Your task to perform on an android device: install app "Upside-Cash back on gas & food" Image 0: 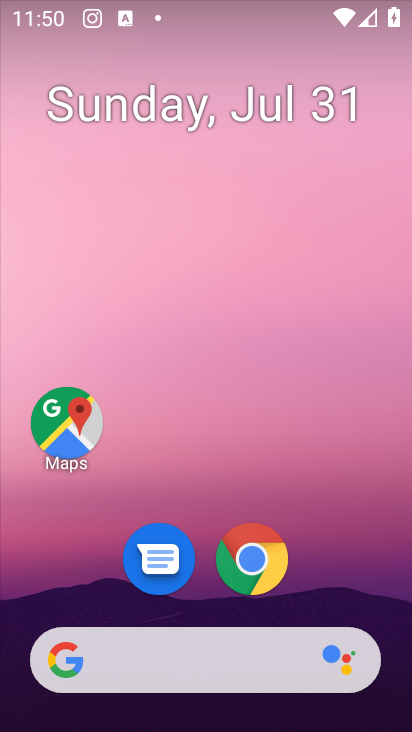
Step 0: drag from (97, 584) to (190, 33)
Your task to perform on an android device: install app "Upside-Cash back on gas & food" Image 1: 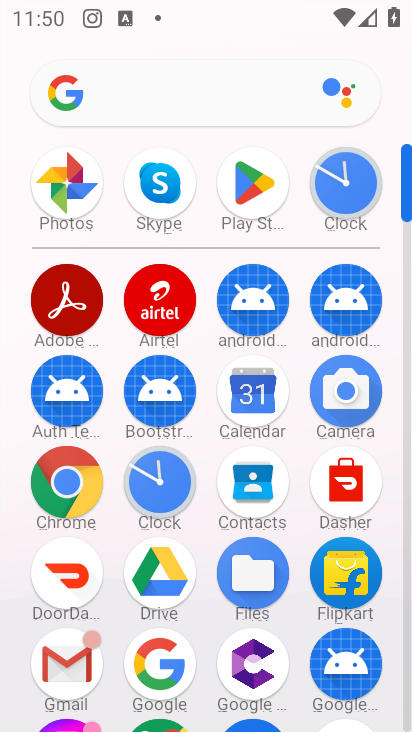
Step 1: click (243, 180)
Your task to perform on an android device: install app "Upside-Cash back on gas & food" Image 2: 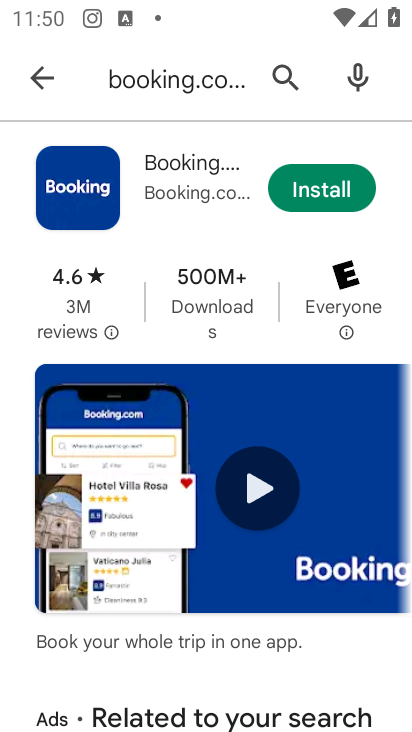
Step 2: click (278, 65)
Your task to perform on an android device: install app "Upside-Cash back on gas & food" Image 3: 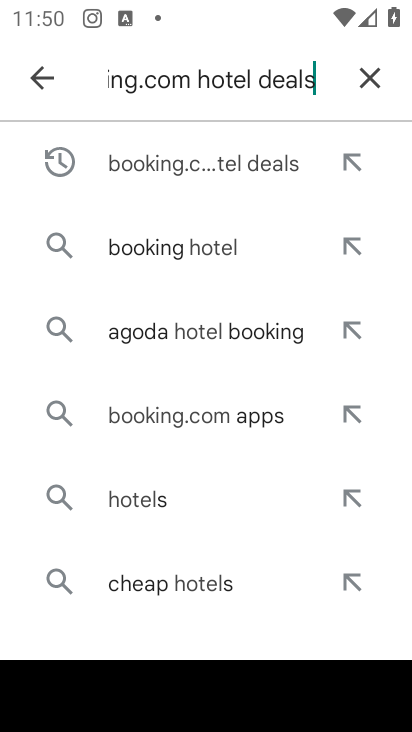
Step 3: click (359, 82)
Your task to perform on an android device: install app "Upside-Cash back on gas & food" Image 4: 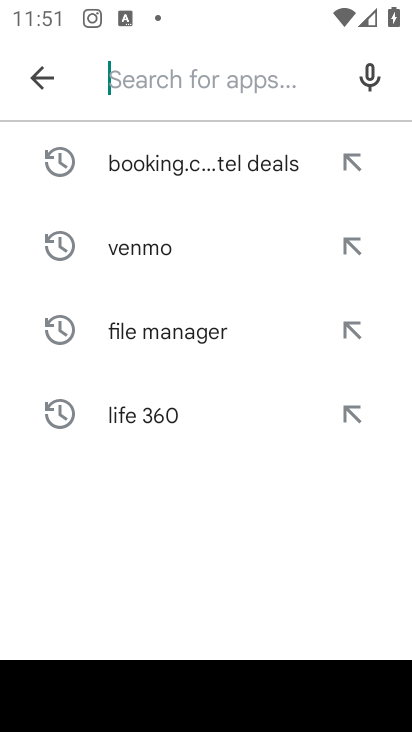
Step 4: click (160, 80)
Your task to perform on an android device: install app "Upside-Cash back on gas & food" Image 5: 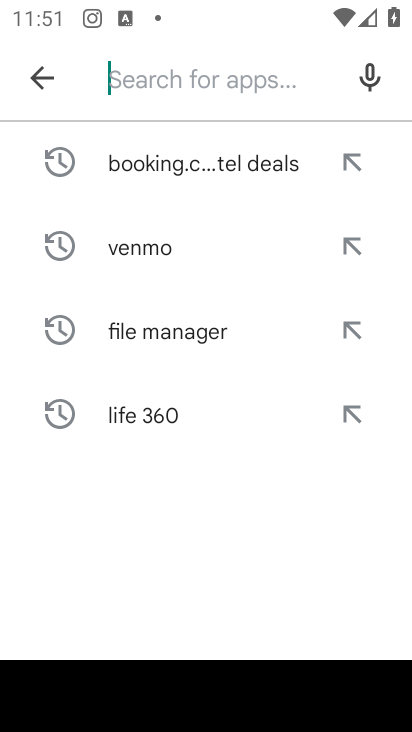
Step 5: type "upside cash"
Your task to perform on an android device: install app "Upside-Cash back on gas & food" Image 6: 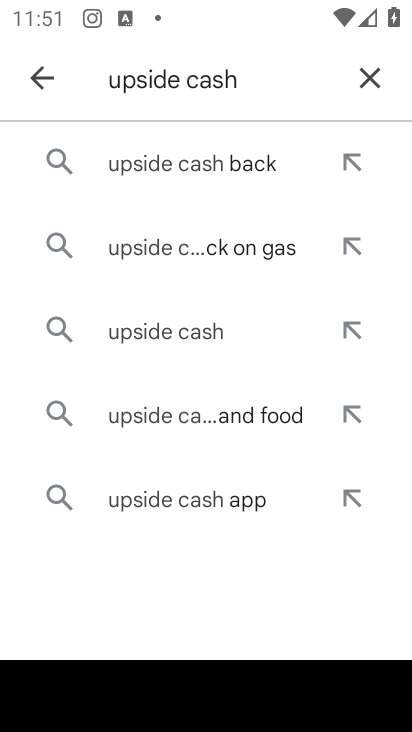
Step 6: click (208, 258)
Your task to perform on an android device: install app "Upside-Cash back on gas & food" Image 7: 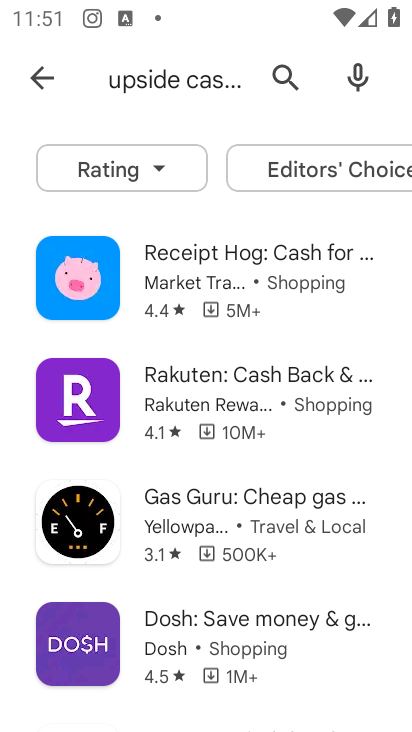
Step 7: task complete